Your task to perform on an android device: create a new album in the google photos Image 0: 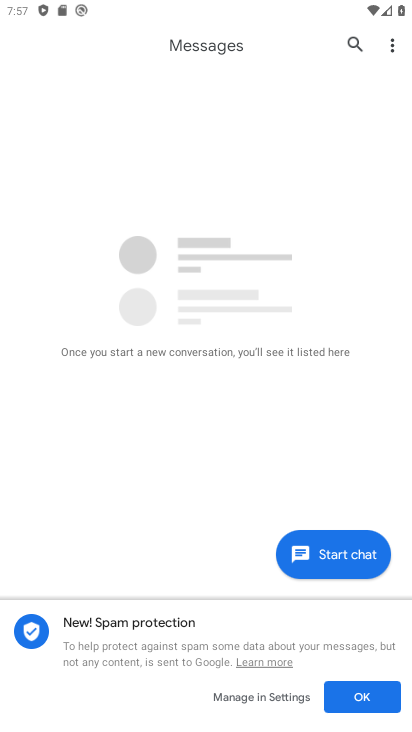
Step 0: press home button
Your task to perform on an android device: create a new album in the google photos Image 1: 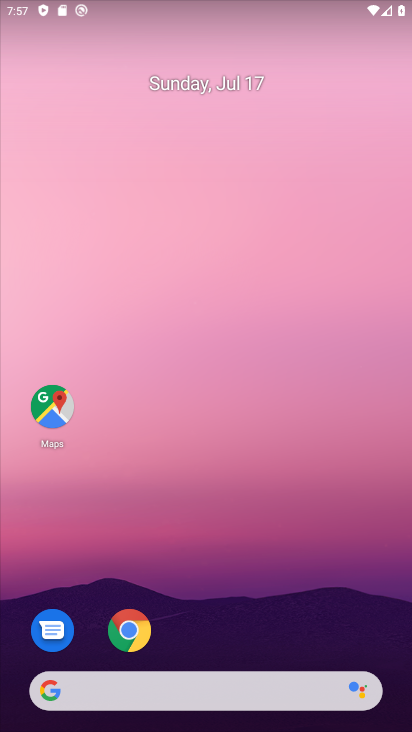
Step 1: drag from (362, 580) to (384, 210)
Your task to perform on an android device: create a new album in the google photos Image 2: 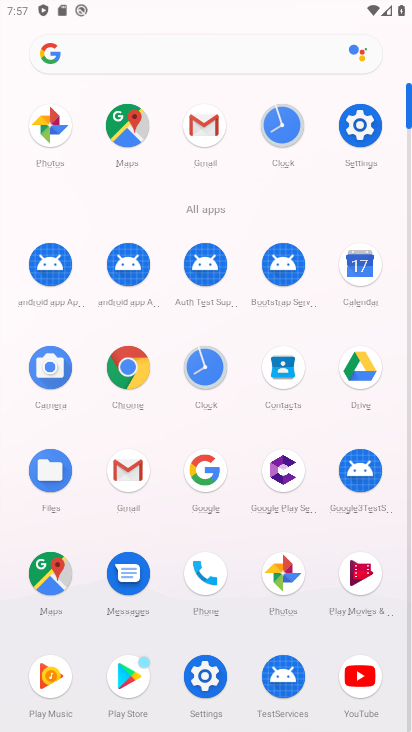
Step 2: click (290, 574)
Your task to perform on an android device: create a new album in the google photos Image 3: 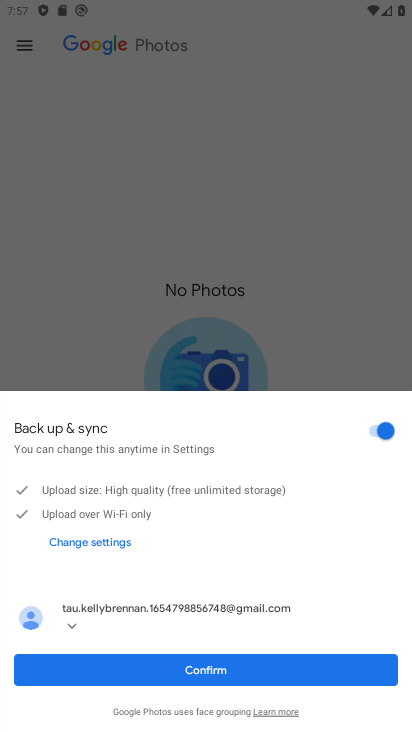
Step 3: click (328, 675)
Your task to perform on an android device: create a new album in the google photos Image 4: 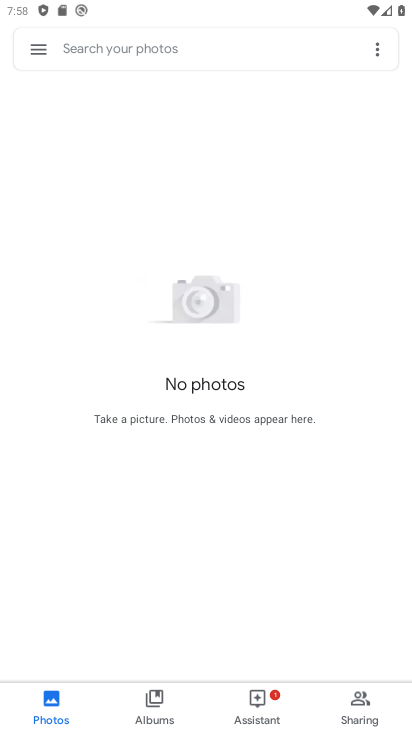
Step 4: click (155, 707)
Your task to perform on an android device: create a new album in the google photos Image 5: 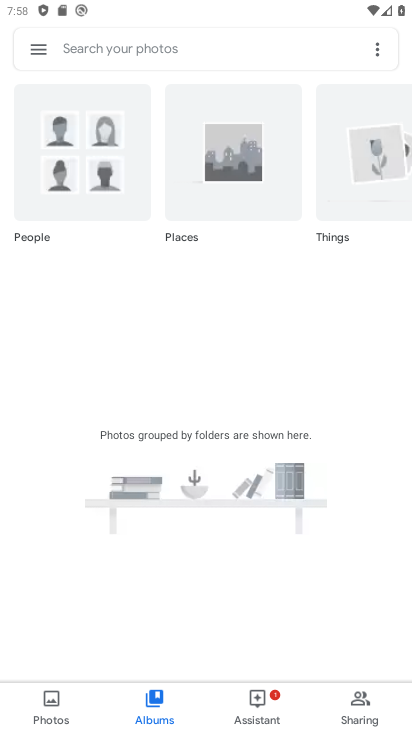
Step 5: click (374, 49)
Your task to perform on an android device: create a new album in the google photos Image 6: 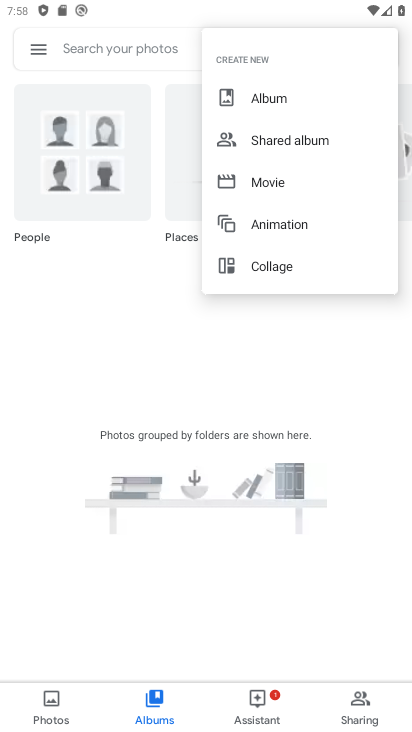
Step 6: click (288, 92)
Your task to perform on an android device: create a new album in the google photos Image 7: 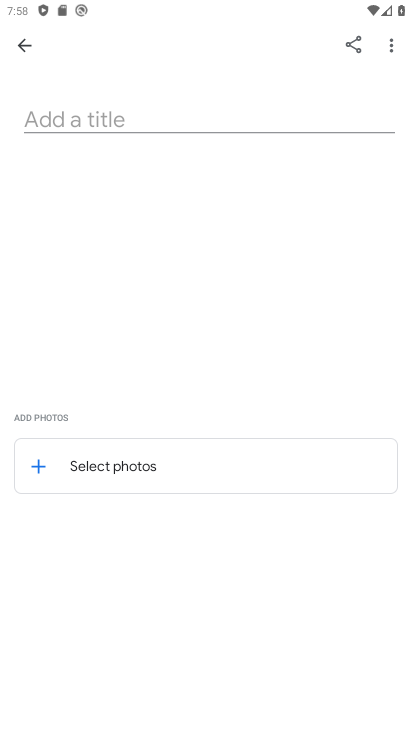
Step 7: click (131, 125)
Your task to perform on an android device: create a new album in the google photos Image 8: 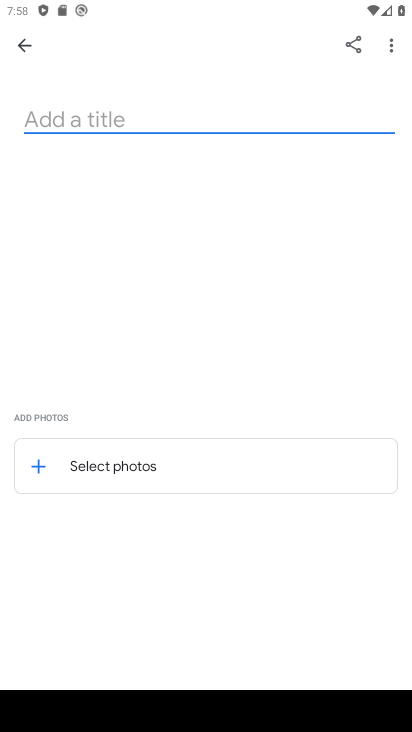
Step 8: type "fav"
Your task to perform on an android device: create a new album in the google photos Image 9: 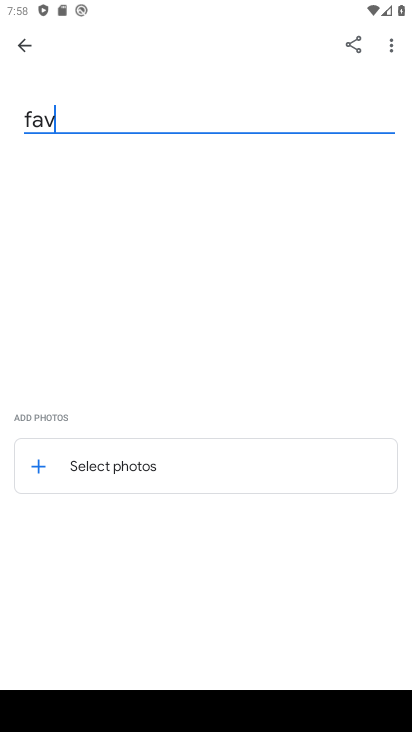
Step 9: click (101, 464)
Your task to perform on an android device: create a new album in the google photos Image 10: 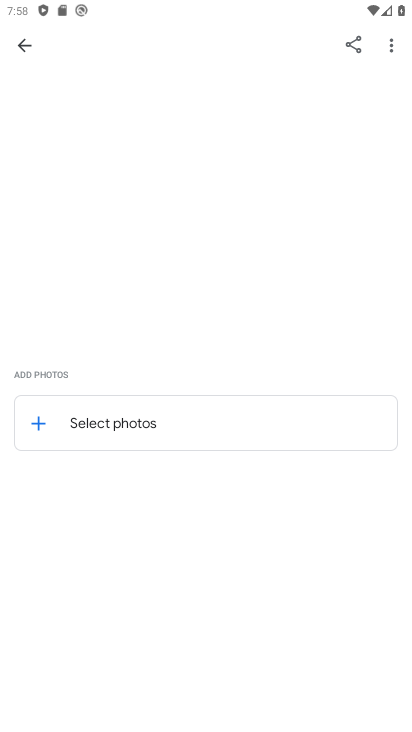
Step 10: click (74, 414)
Your task to perform on an android device: create a new album in the google photos Image 11: 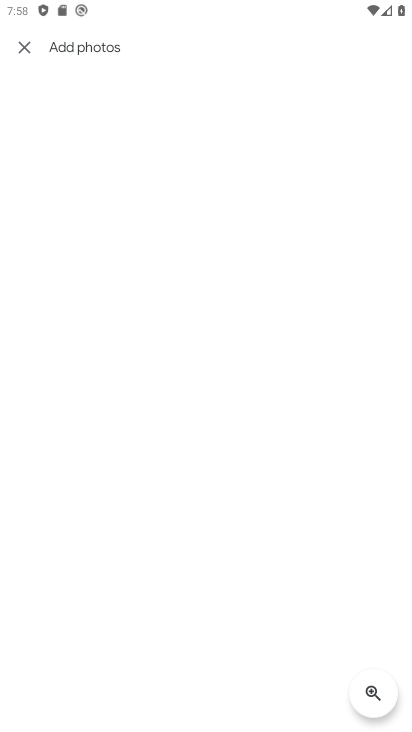
Step 11: task complete